Your task to perform on an android device: Open the clock Image 0: 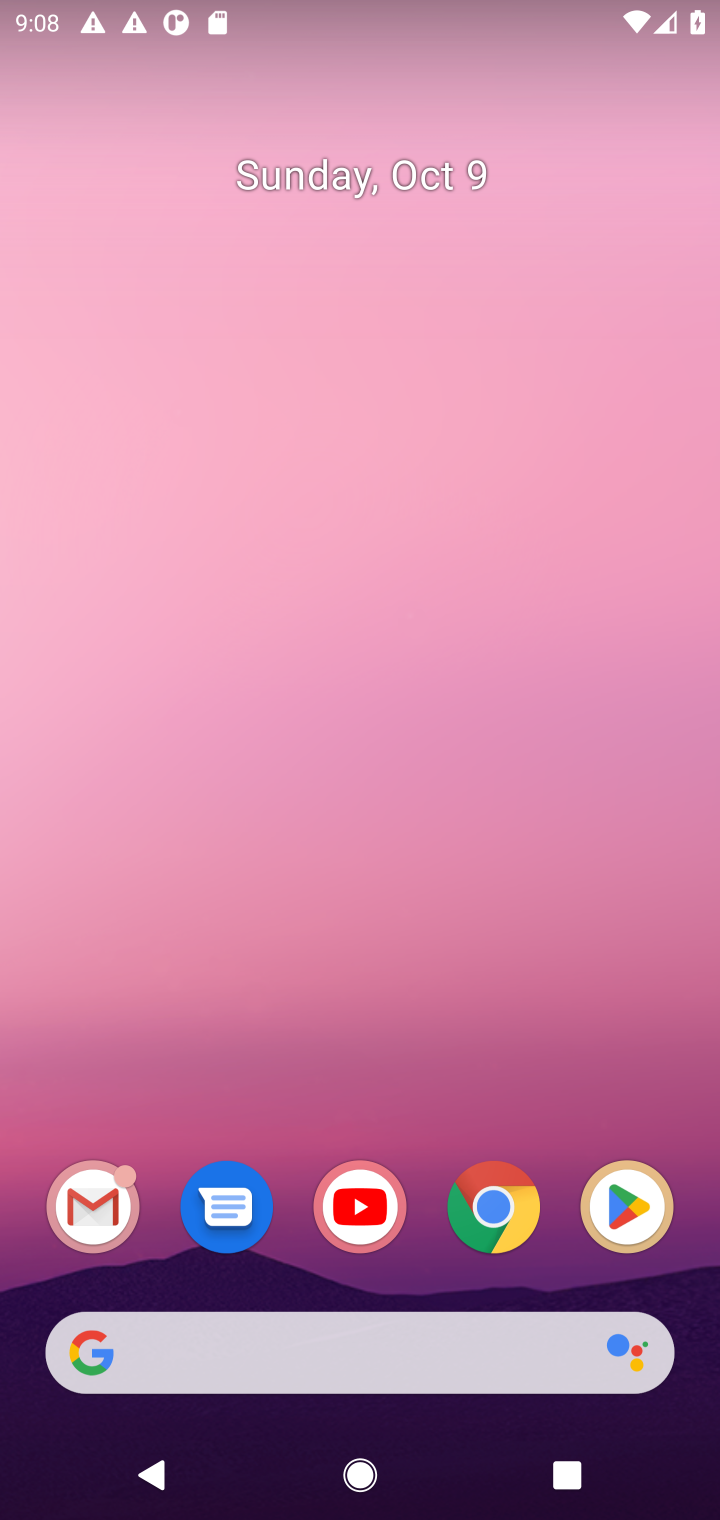
Step 0: press home button
Your task to perform on an android device: Open the clock Image 1: 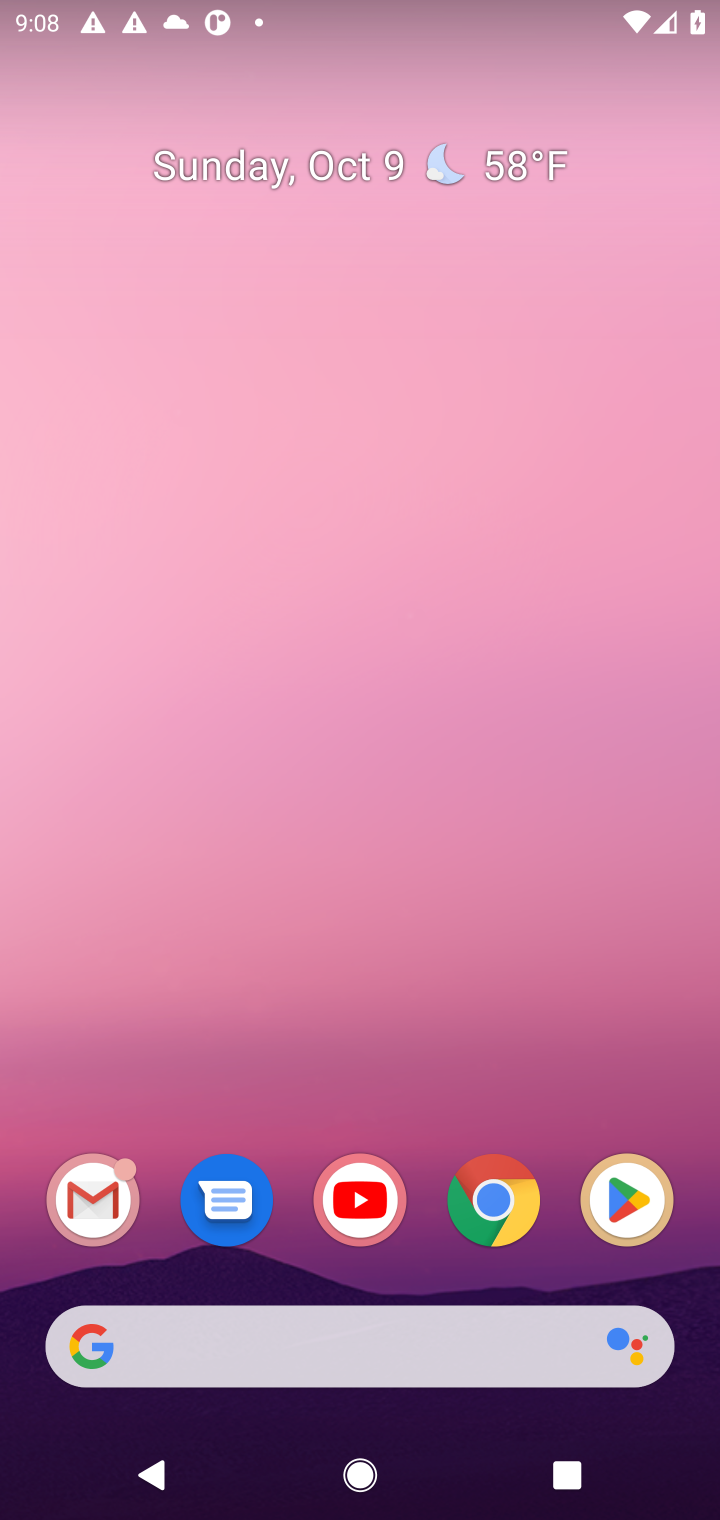
Step 1: drag from (391, 1016) to (521, 205)
Your task to perform on an android device: Open the clock Image 2: 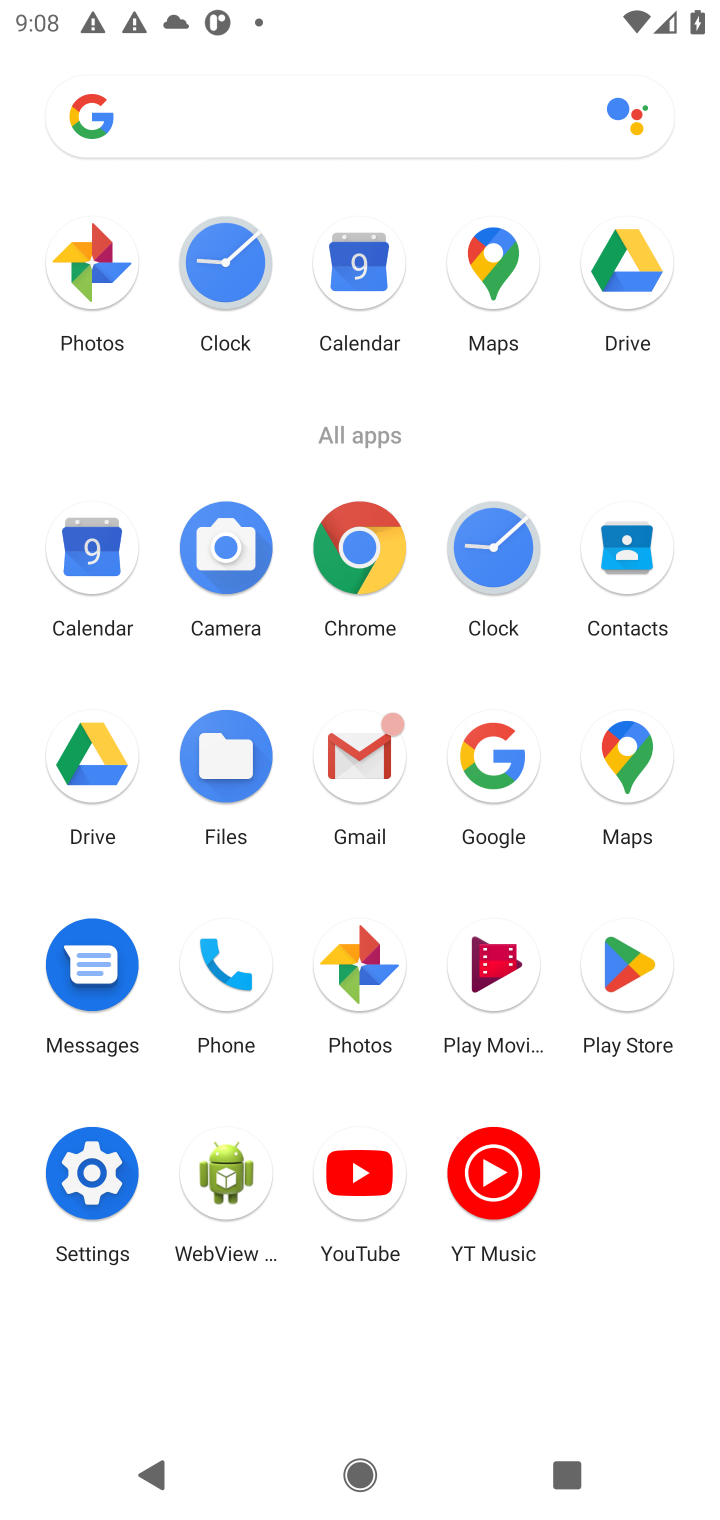
Step 2: click (497, 551)
Your task to perform on an android device: Open the clock Image 3: 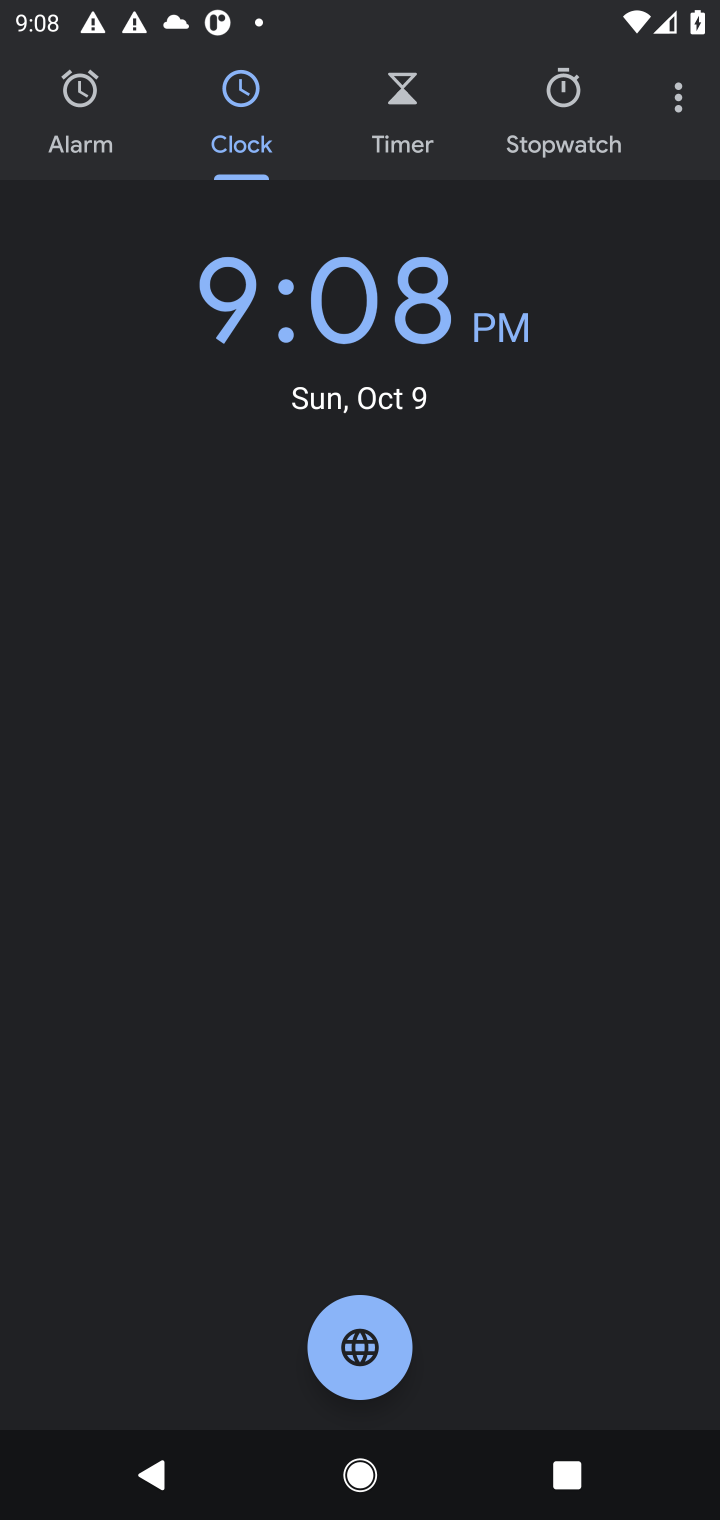
Step 3: task complete